Your task to perform on an android device: Open Android settings Image 0: 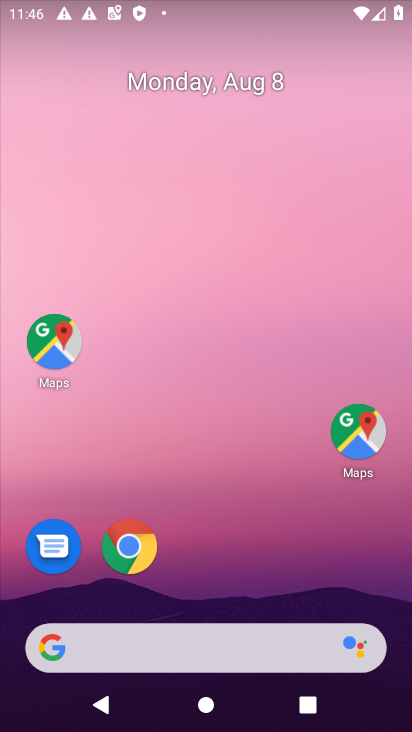
Step 0: press back button
Your task to perform on an android device: Open Android settings Image 1: 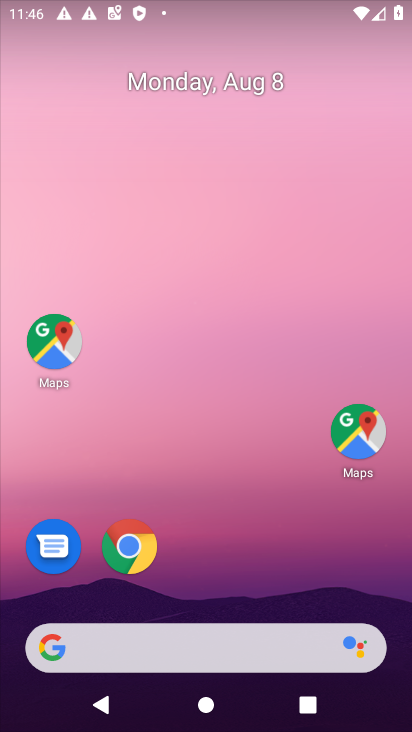
Step 1: drag from (255, 656) to (171, 104)
Your task to perform on an android device: Open Android settings Image 2: 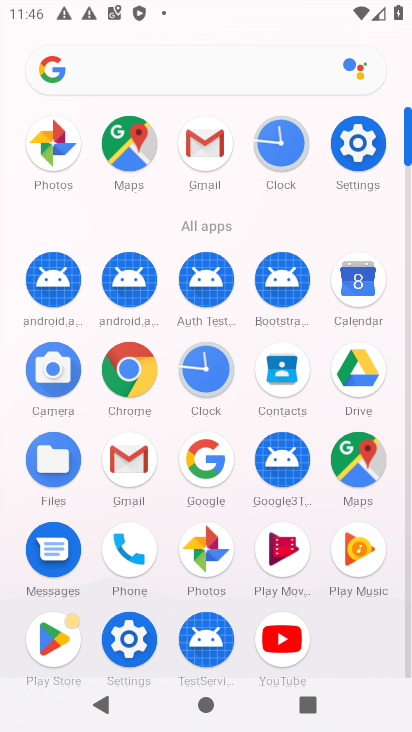
Step 2: click (354, 149)
Your task to perform on an android device: Open Android settings Image 3: 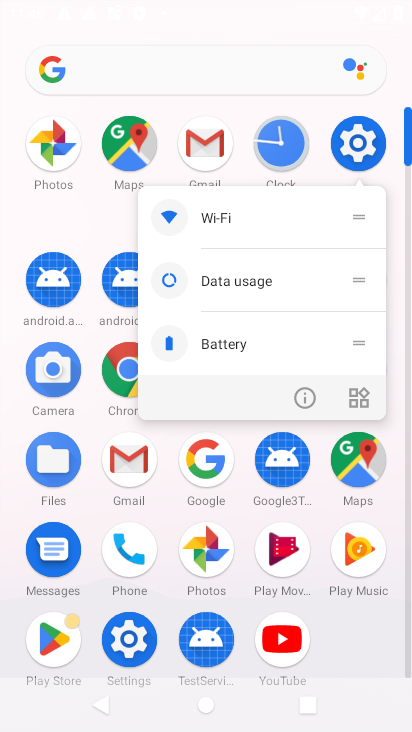
Step 3: click (352, 159)
Your task to perform on an android device: Open Android settings Image 4: 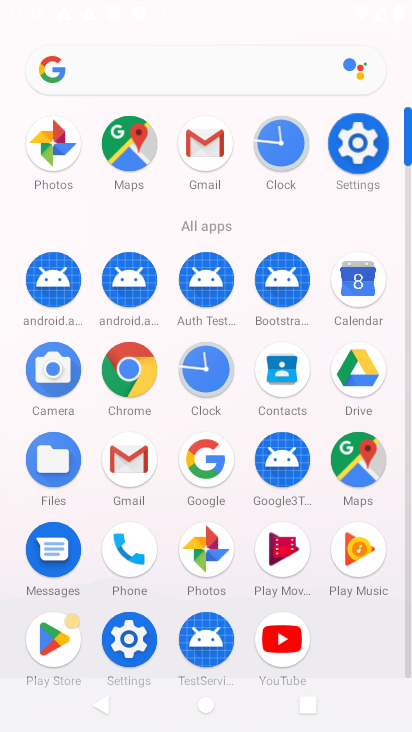
Step 4: click (357, 156)
Your task to perform on an android device: Open Android settings Image 5: 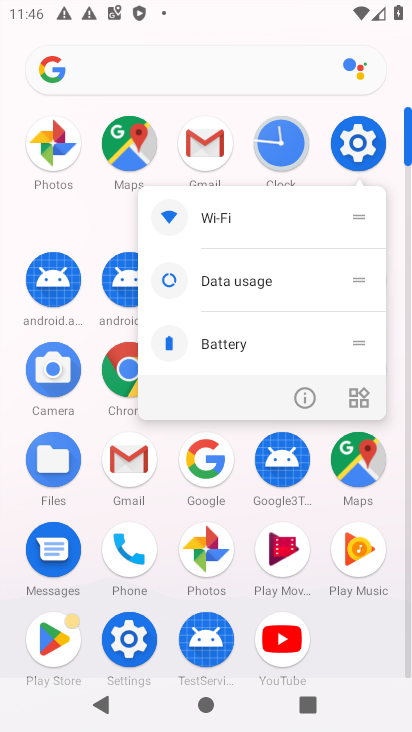
Step 5: click (351, 135)
Your task to perform on an android device: Open Android settings Image 6: 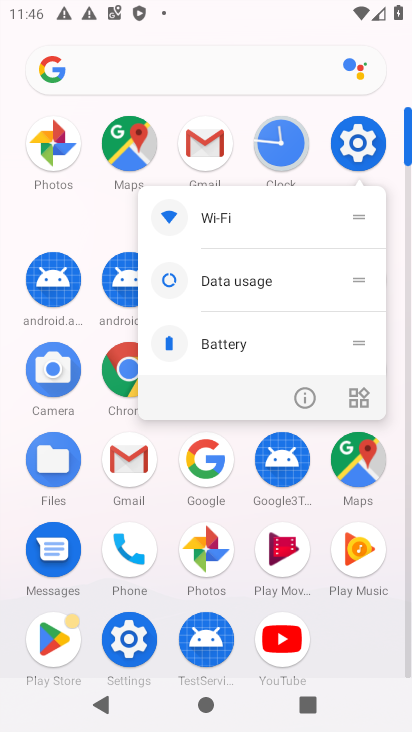
Step 6: click (352, 138)
Your task to perform on an android device: Open Android settings Image 7: 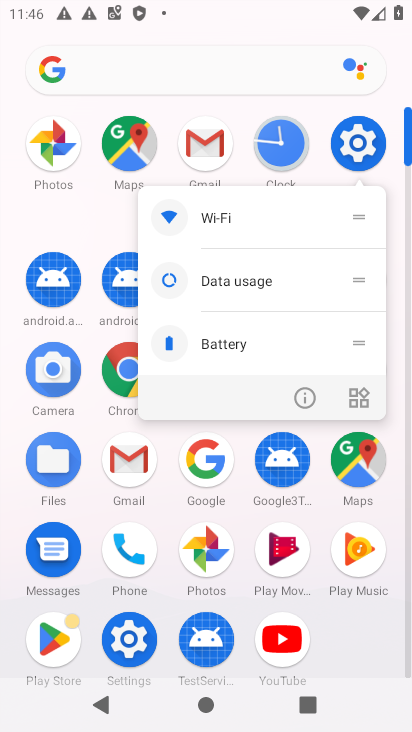
Step 7: click (348, 147)
Your task to perform on an android device: Open Android settings Image 8: 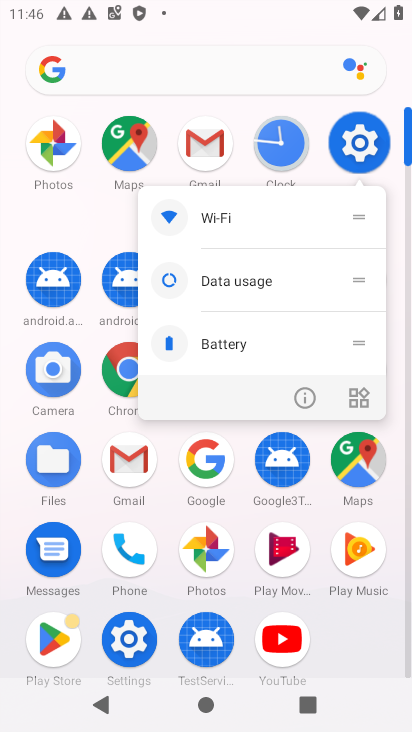
Step 8: click (364, 147)
Your task to perform on an android device: Open Android settings Image 9: 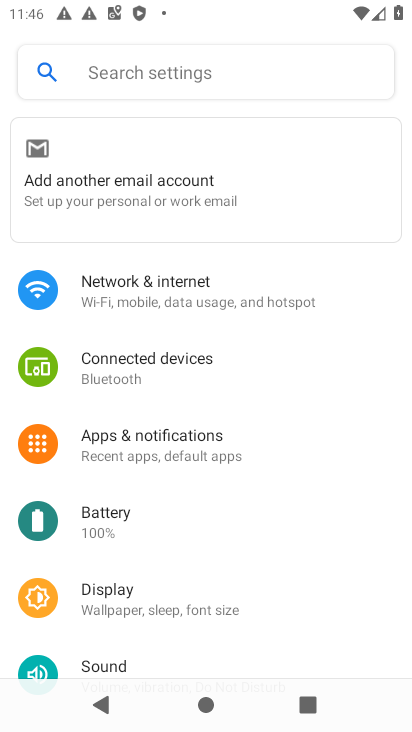
Step 9: drag from (190, 522) to (176, 243)
Your task to perform on an android device: Open Android settings Image 10: 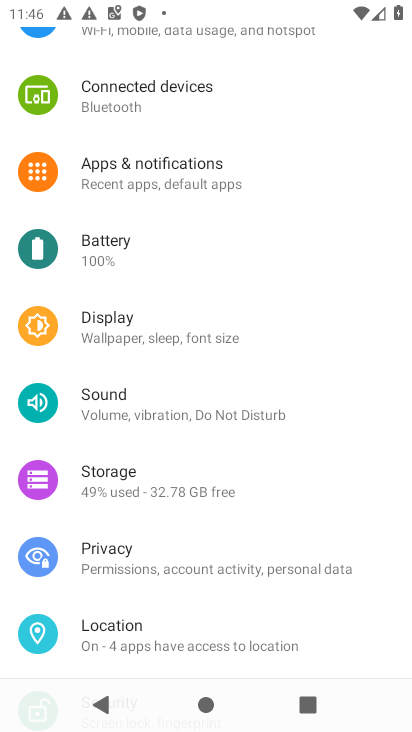
Step 10: drag from (130, 387) to (130, 196)
Your task to perform on an android device: Open Android settings Image 11: 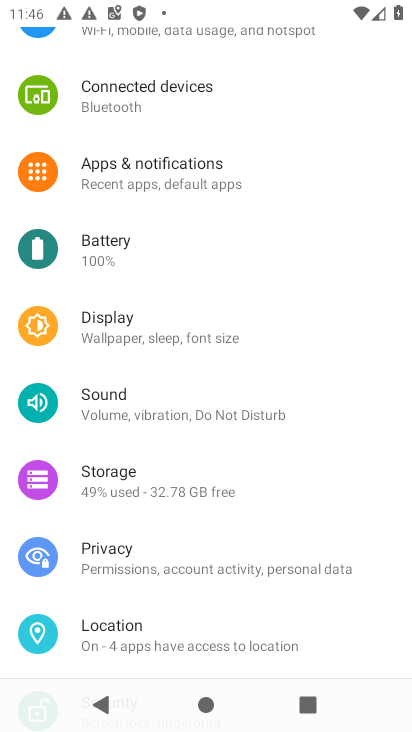
Step 11: drag from (138, 567) to (190, 255)
Your task to perform on an android device: Open Android settings Image 12: 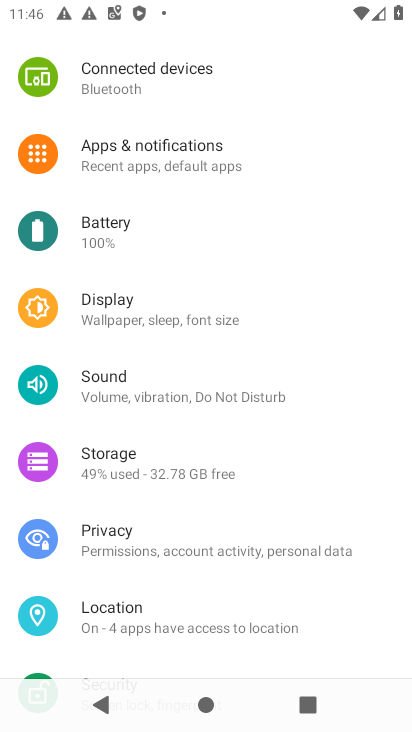
Step 12: drag from (183, 593) to (175, 222)
Your task to perform on an android device: Open Android settings Image 13: 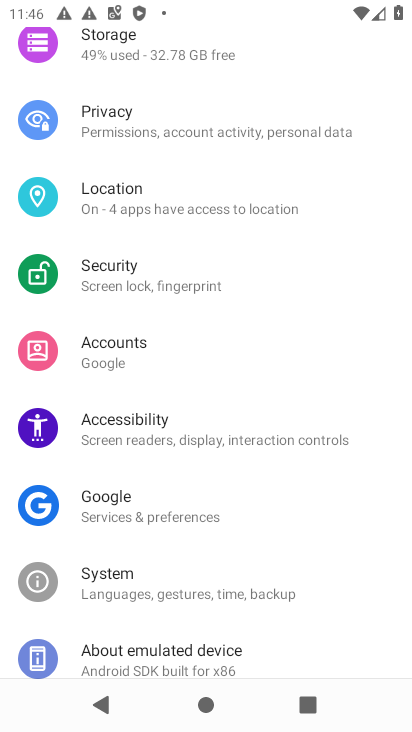
Step 13: drag from (229, 557) to (232, 281)
Your task to perform on an android device: Open Android settings Image 14: 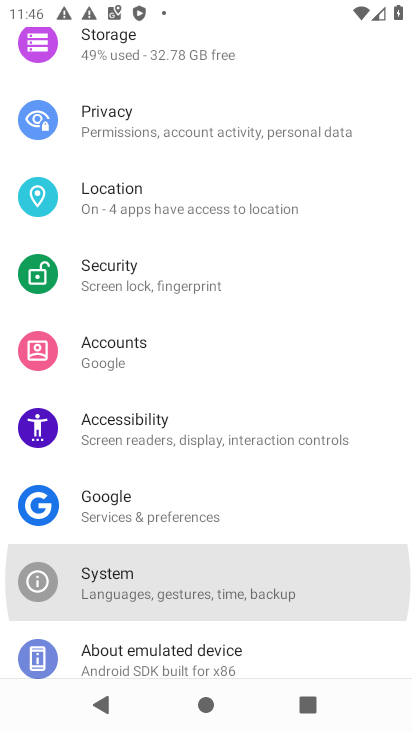
Step 14: drag from (222, 355) to (215, 225)
Your task to perform on an android device: Open Android settings Image 15: 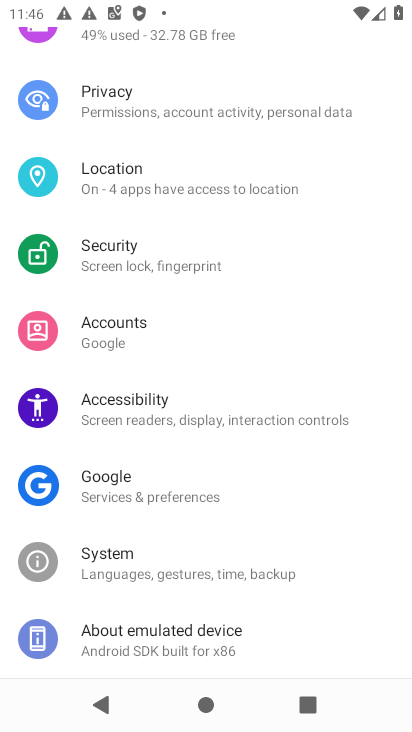
Step 15: drag from (189, 345) to (192, 162)
Your task to perform on an android device: Open Android settings Image 16: 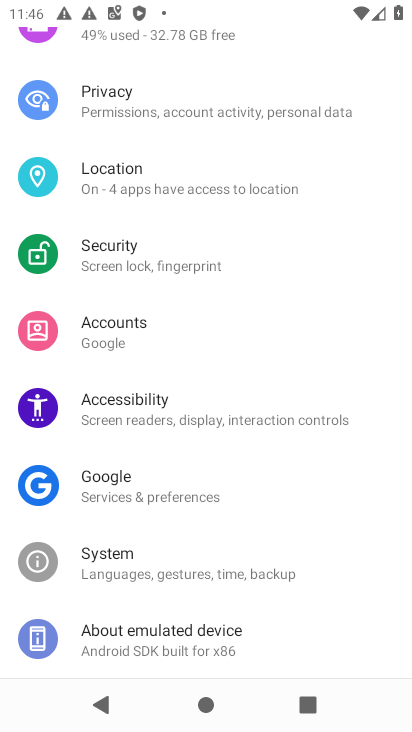
Step 16: click (195, 650)
Your task to perform on an android device: Open Android settings Image 17: 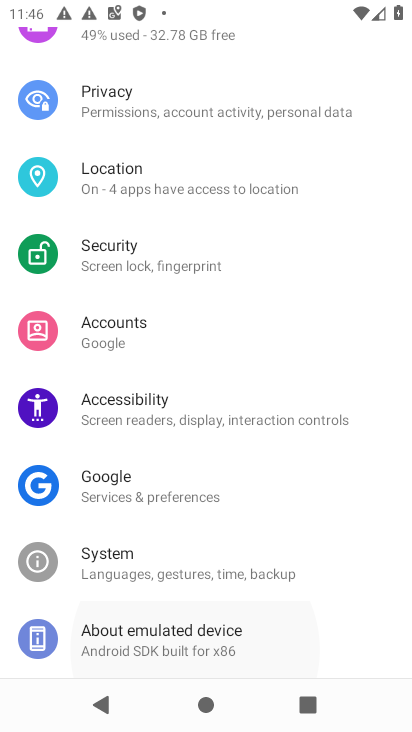
Step 17: click (195, 650)
Your task to perform on an android device: Open Android settings Image 18: 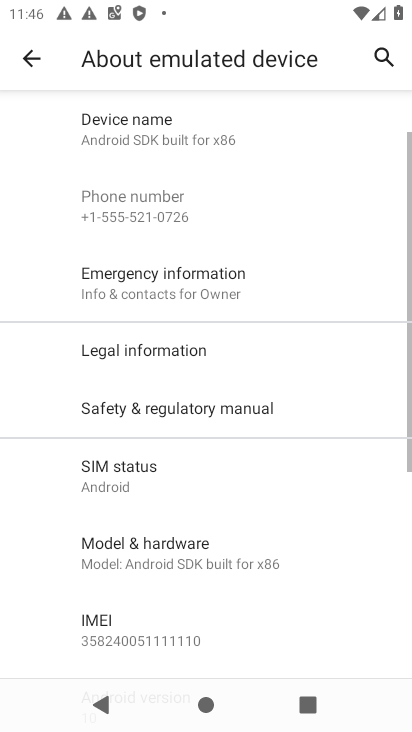
Step 18: click (31, 56)
Your task to perform on an android device: Open Android settings Image 19: 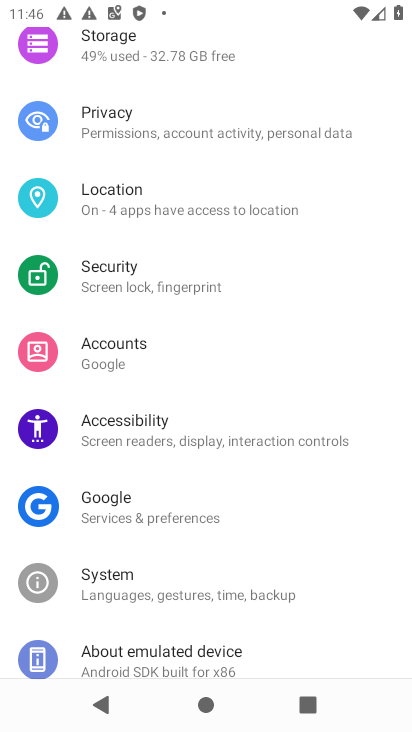
Step 19: task complete